Your task to perform on an android device: change your default location settings in chrome Image 0: 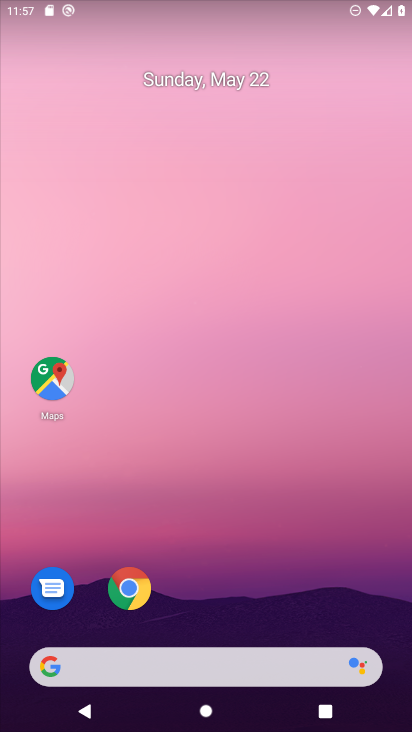
Step 0: drag from (250, 684) to (357, 120)
Your task to perform on an android device: change your default location settings in chrome Image 1: 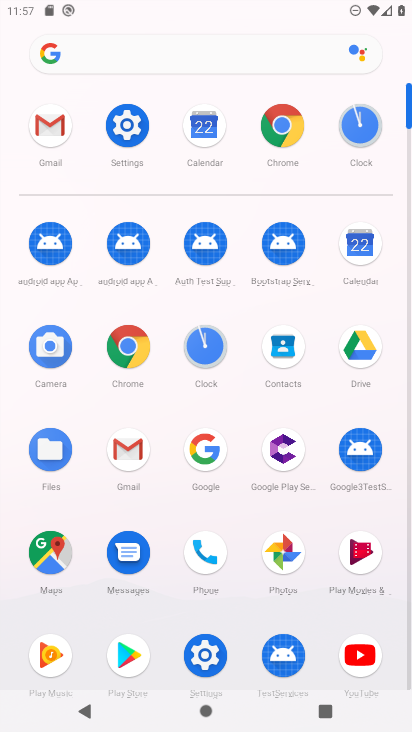
Step 1: click (119, 360)
Your task to perform on an android device: change your default location settings in chrome Image 2: 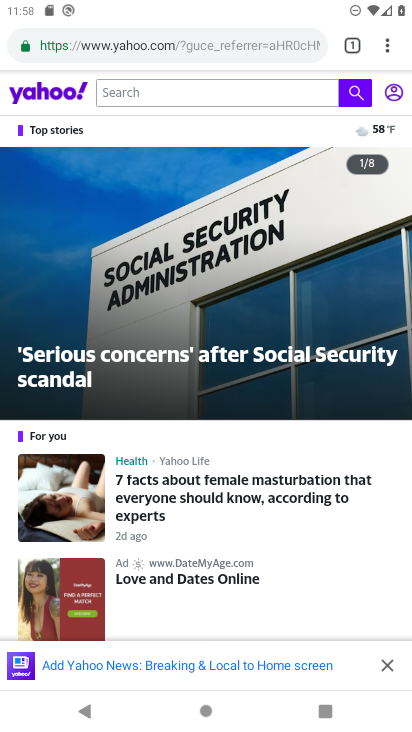
Step 2: click (377, 68)
Your task to perform on an android device: change your default location settings in chrome Image 3: 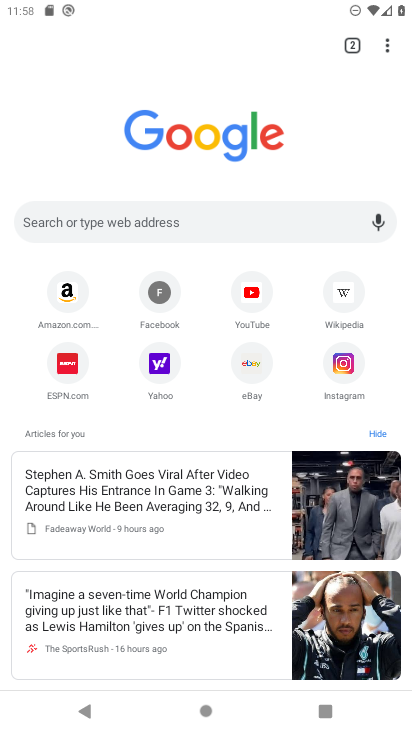
Step 3: click (388, 55)
Your task to perform on an android device: change your default location settings in chrome Image 4: 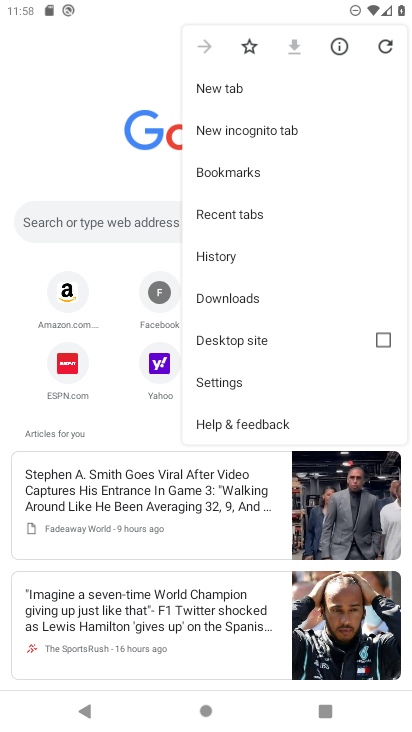
Step 4: click (249, 379)
Your task to perform on an android device: change your default location settings in chrome Image 5: 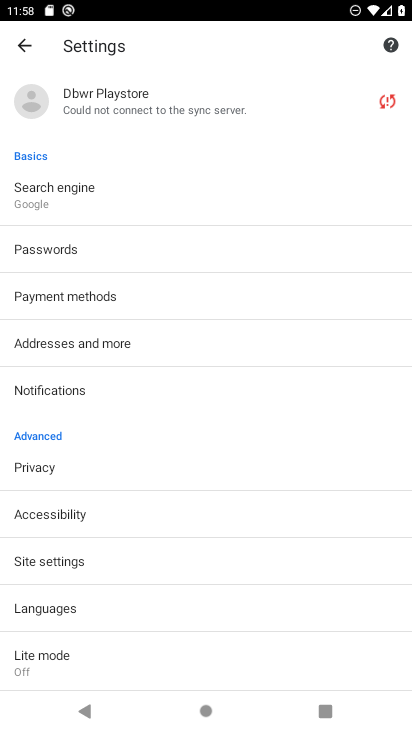
Step 5: click (73, 552)
Your task to perform on an android device: change your default location settings in chrome Image 6: 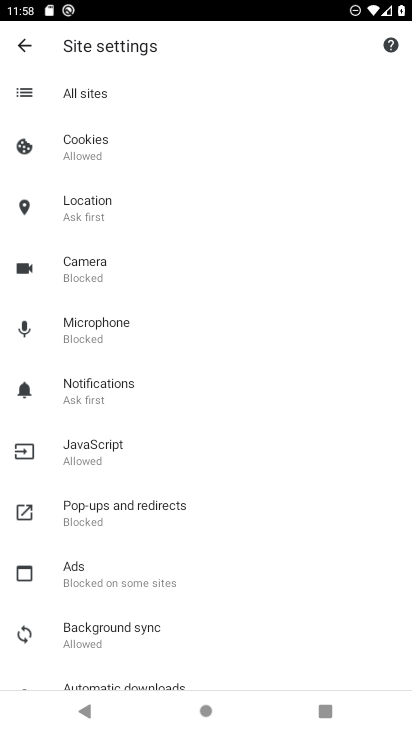
Step 6: click (92, 222)
Your task to perform on an android device: change your default location settings in chrome Image 7: 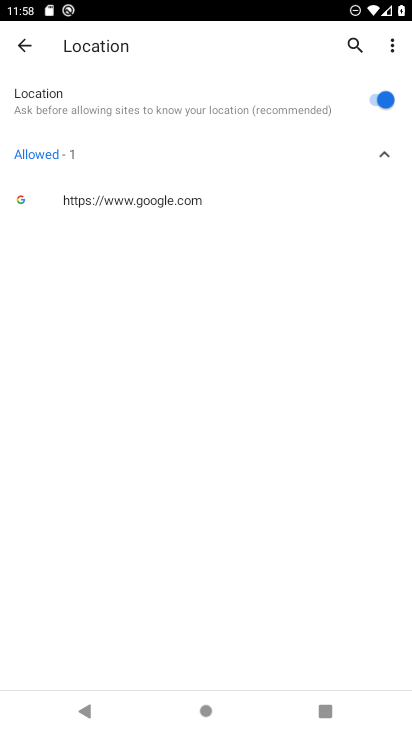
Step 7: task complete